Your task to perform on an android device: Open the map Image 0: 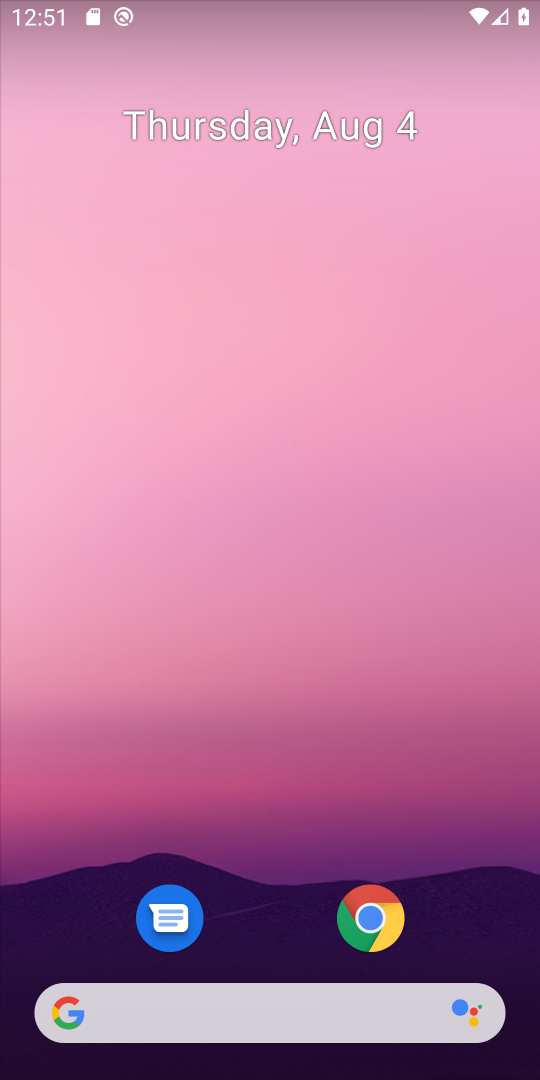
Step 0: drag from (232, 916) to (230, 348)
Your task to perform on an android device: Open the map Image 1: 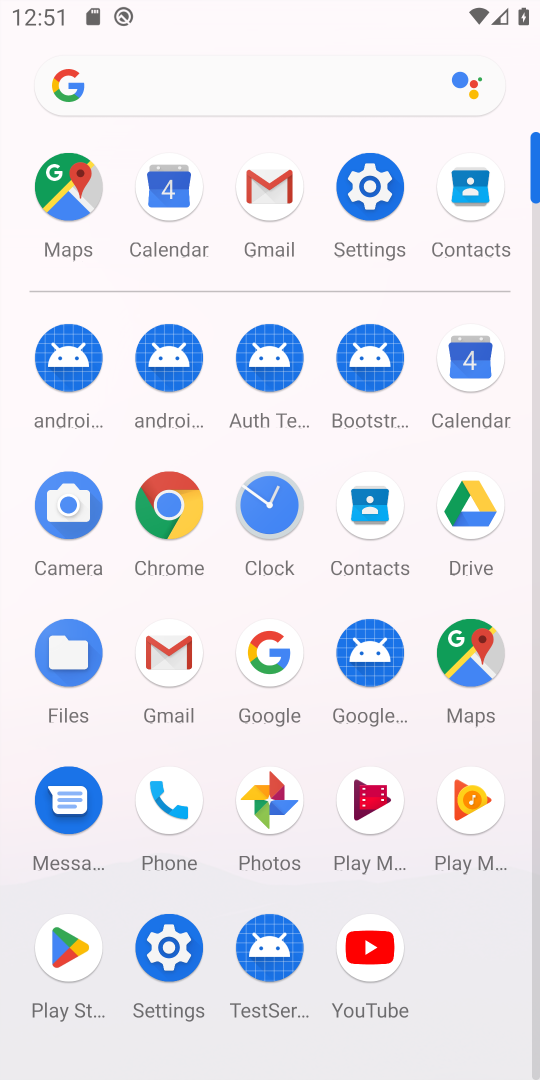
Step 1: click (456, 663)
Your task to perform on an android device: Open the map Image 2: 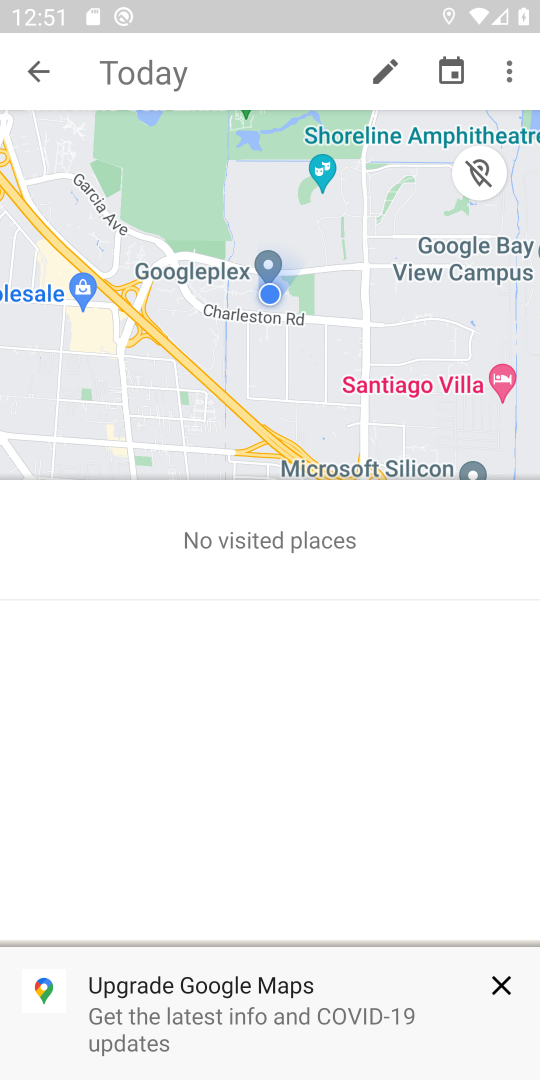
Step 2: task complete